Your task to perform on an android device: Search for Italian restaurants on Maps Image 0: 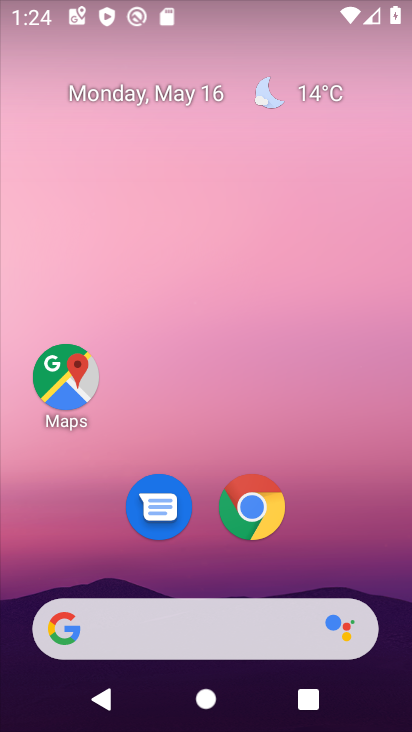
Step 0: drag from (284, 553) to (303, 207)
Your task to perform on an android device: Search for Italian restaurants on Maps Image 1: 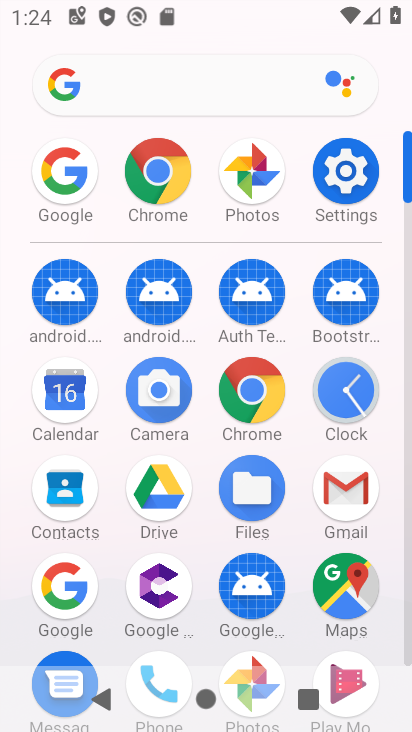
Step 1: click (347, 608)
Your task to perform on an android device: Search for Italian restaurants on Maps Image 2: 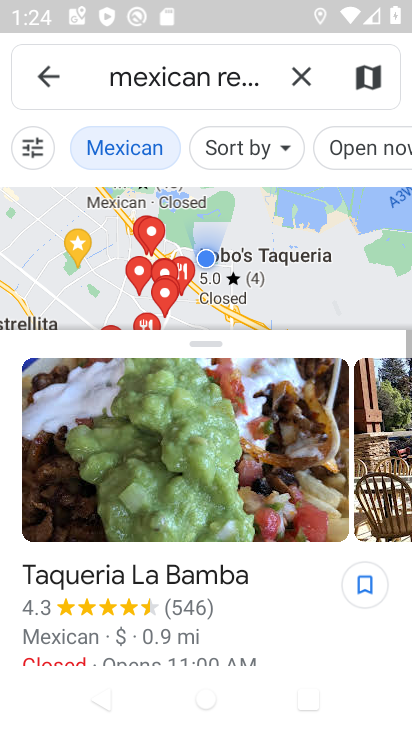
Step 2: click (306, 75)
Your task to perform on an android device: Search for Italian restaurants on Maps Image 3: 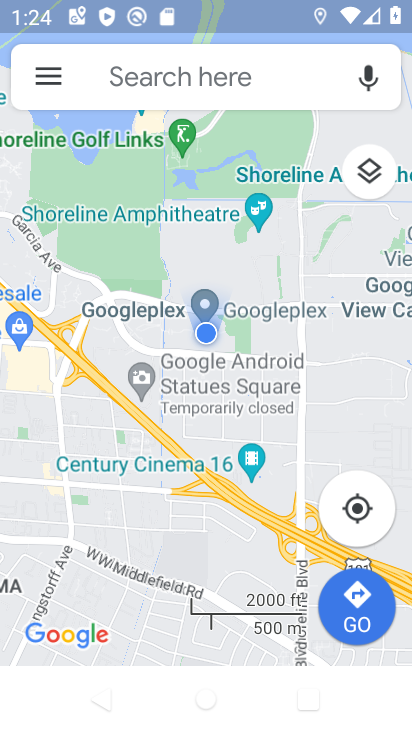
Step 3: click (198, 91)
Your task to perform on an android device: Search for Italian restaurants on Maps Image 4: 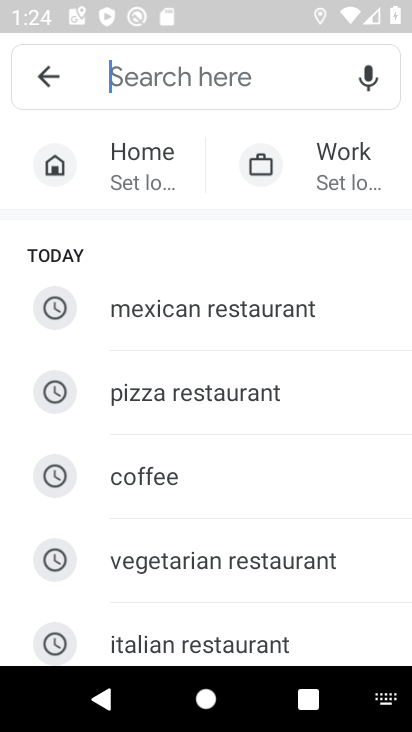
Step 4: click (218, 632)
Your task to perform on an android device: Search for Italian restaurants on Maps Image 5: 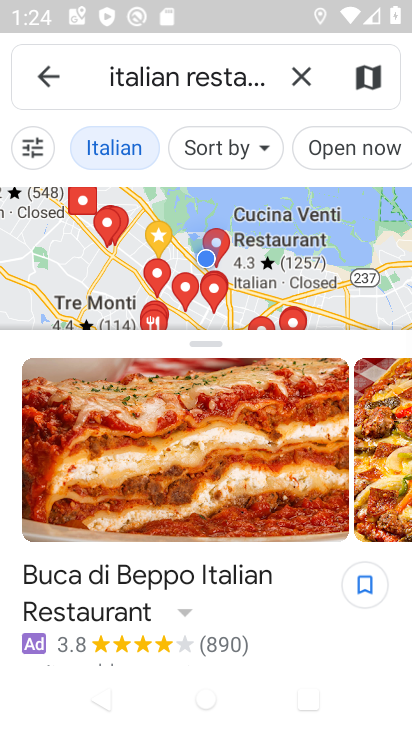
Step 5: task complete